Your task to perform on an android device: all mails in gmail Image 0: 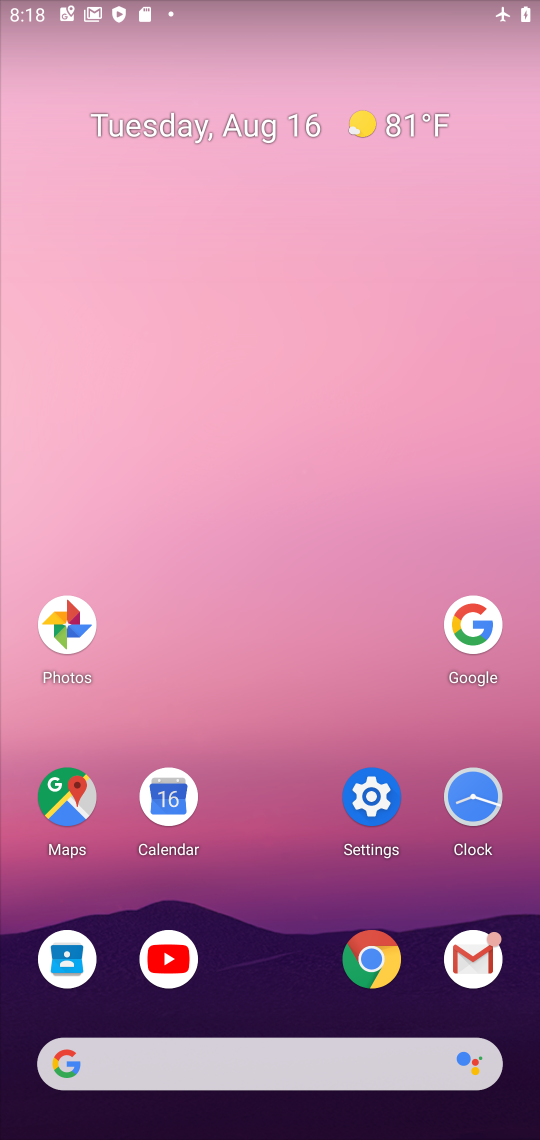
Step 0: click (468, 968)
Your task to perform on an android device: all mails in gmail Image 1: 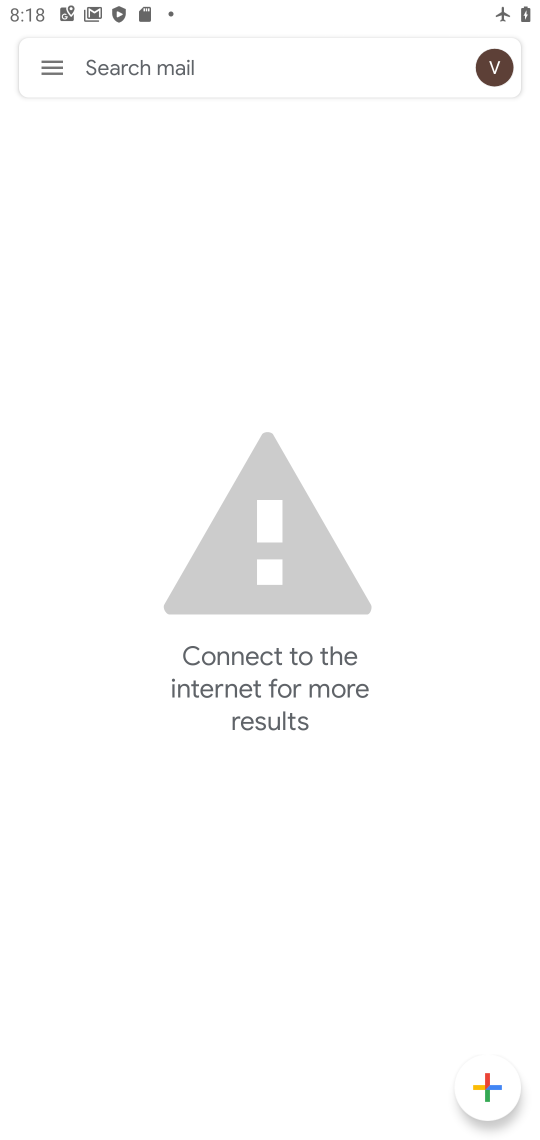
Step 1: click (49, 63)
Your task to perform on an android device: all mails in gmail Image 2: 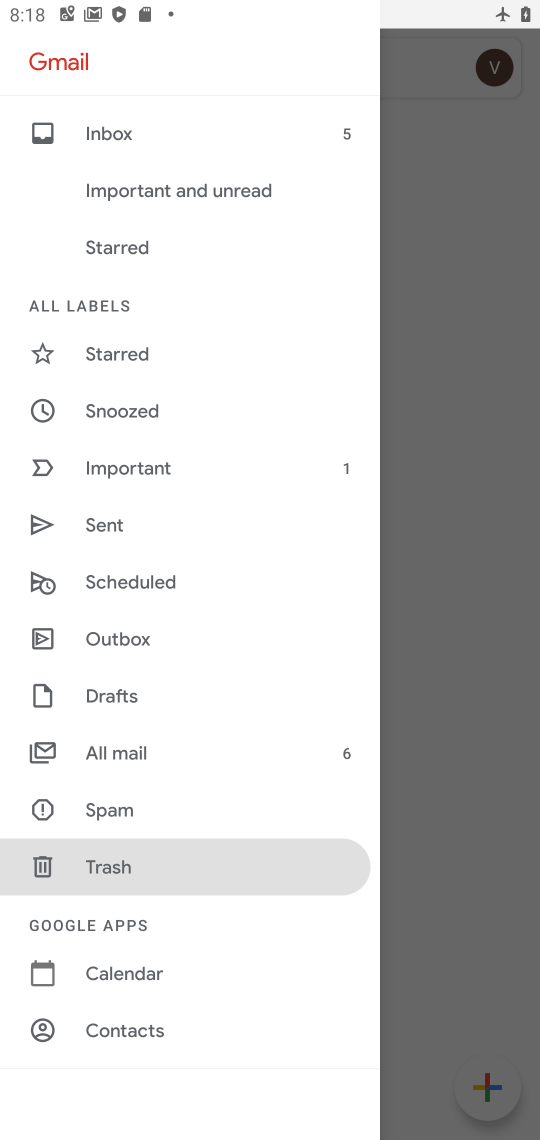
Step 2: click (114, 750)
Your task to perform on an android device: all mails in gmail Image 3: 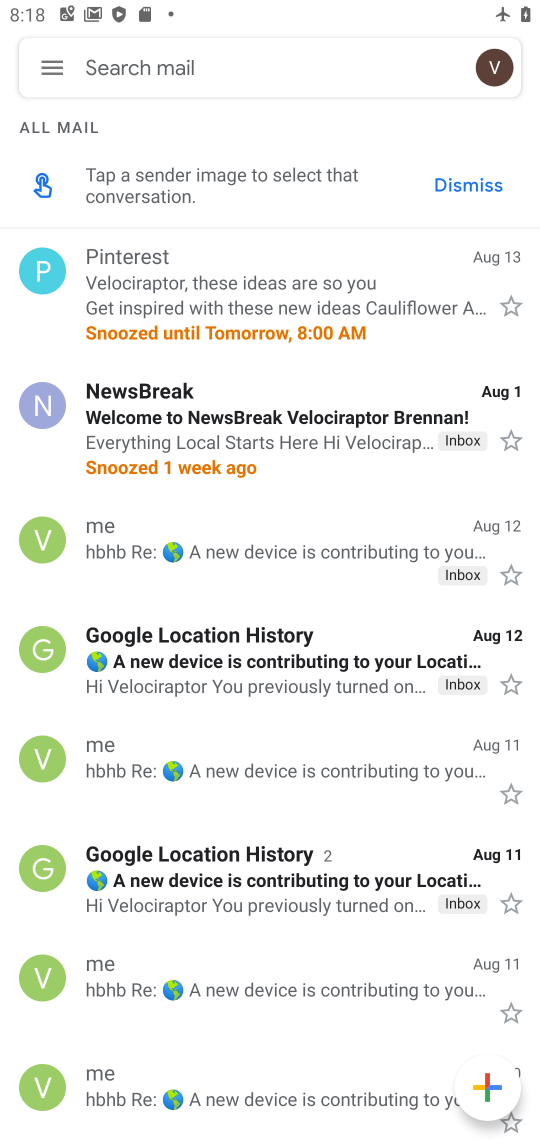
Step 3: task complete